Your task to perform on an android device: find snoozed emails in the gmail app Image 0: 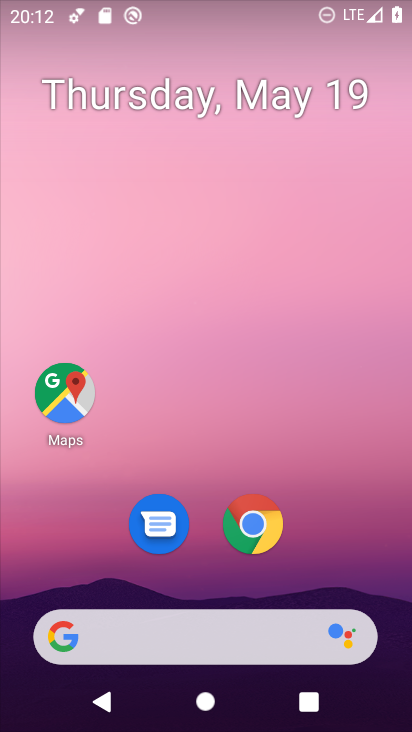
Step 0: drag from (333, 557) to (364, 28)
Your task to perform on an android device: find snoozed emails in the gmail app Image 1: 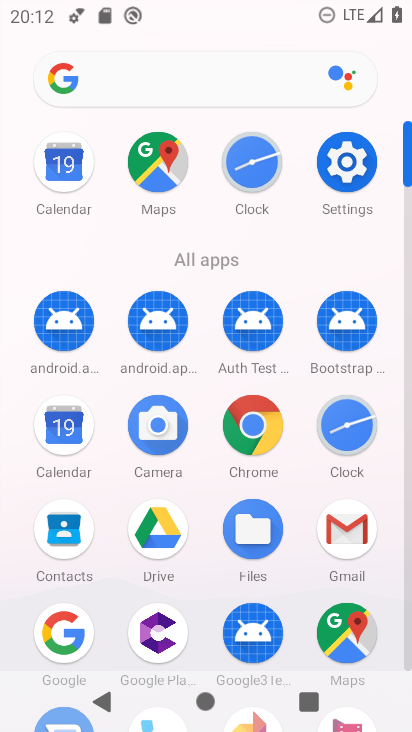
Step 1: click (333, 515)
Your task to perform on an android device: find snoozed emails in the gmail app Image 2: 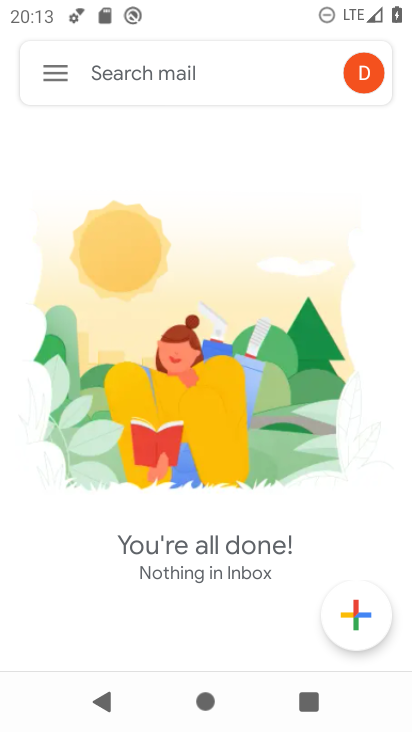
Step 2: click (52, 58)
Your task to perform on an android device: find snoozed emails in the gmail app Image 3: 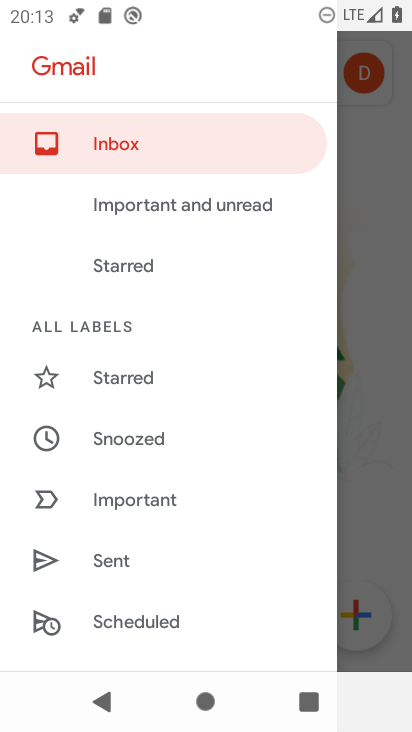
Step 3: click (115, 429)
Your task to perform on an android device: find snoozed emails in the gmail app Image 4: 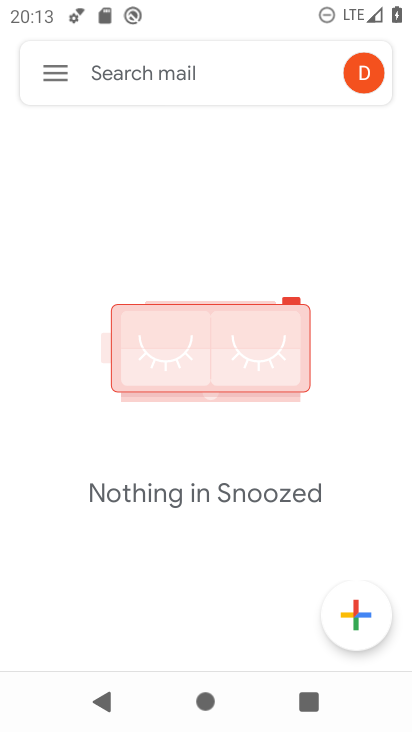
Step 4: task complete